Your task to perform on an android device: Go to Android settings Image 0: 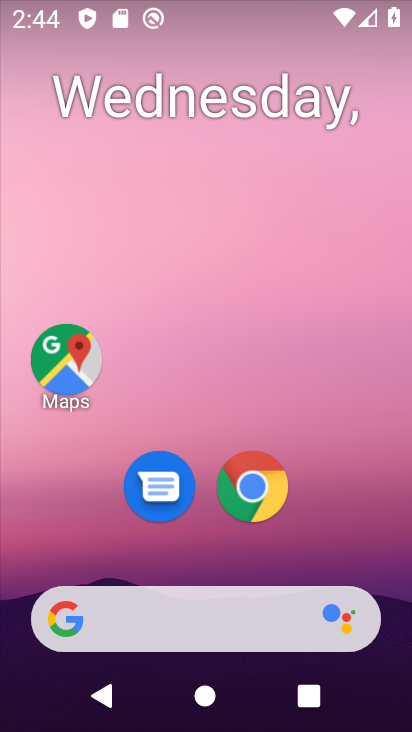
Step 0: drag from (212, 587) to (262, 169)
Your task to perform on an android device: Go to Android settings Image 1: 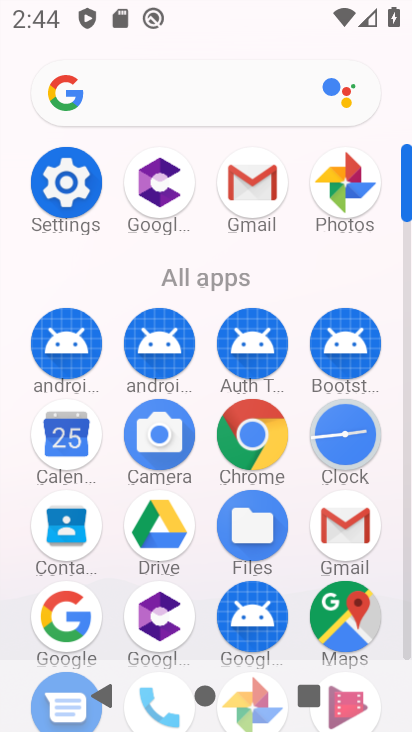
Step 1: click (60, 192)
Your task to perform on an android device: Go to Android settings Image 2: 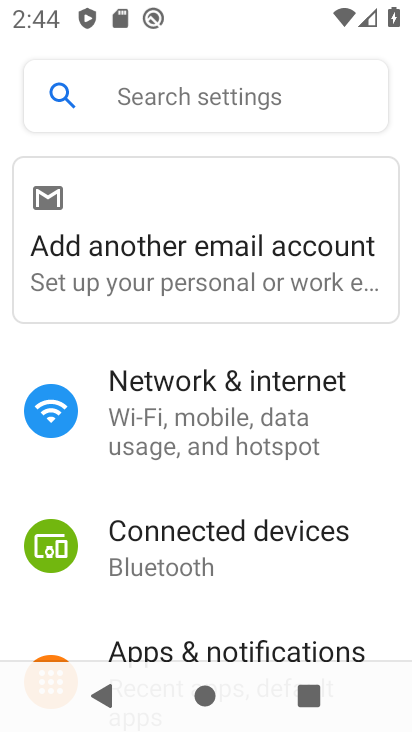
Step 2: task complete